Your task to perform on an android device: turn off location Image 0: 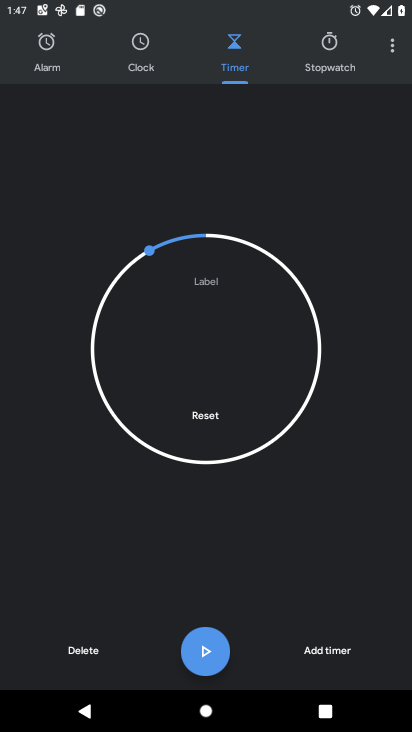
Step 0: press home button
Your task to perform on an android device: turn off location Image 1: 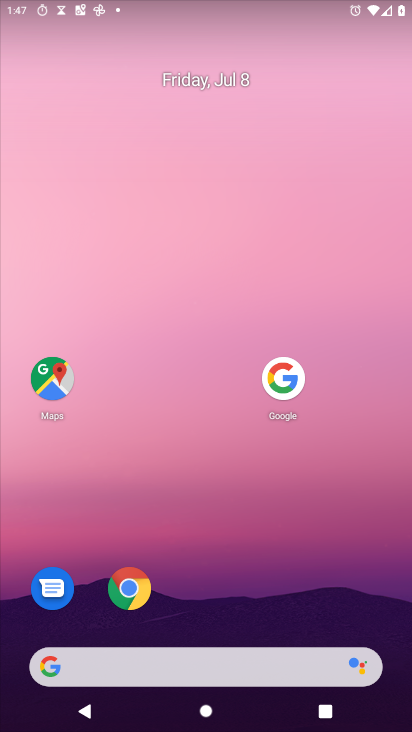
Step 1: drag from (185, 655) to (288, 42)
Your task to perform on an android device: turn off location Image 2: 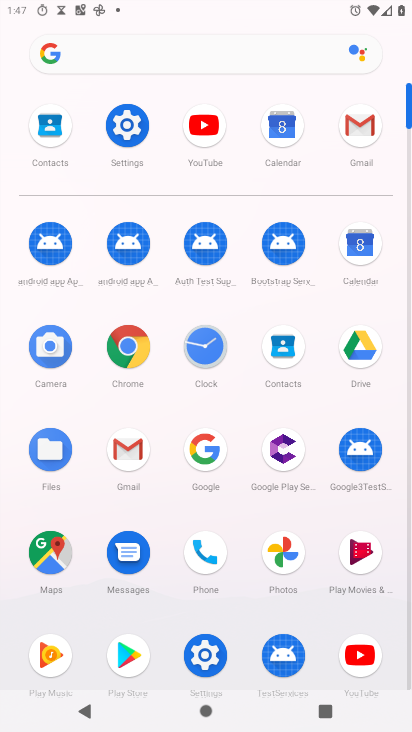
Step 2: click (134, 123)
Your task to perform on an android device: turn off location Image 3: 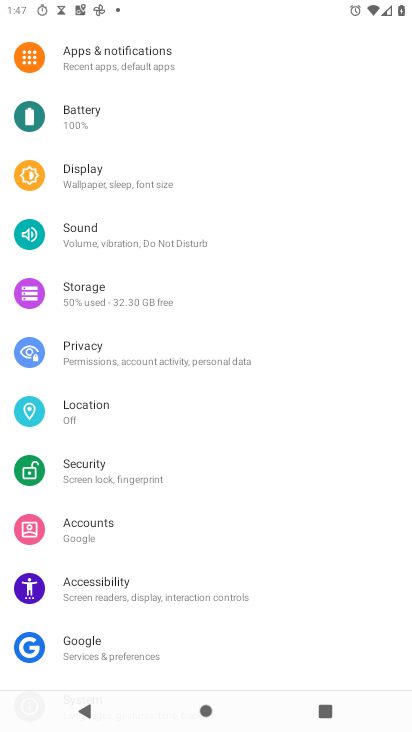
Step 3: click (83, 403)
Your task to perform on an android device: turn off location Image 4: 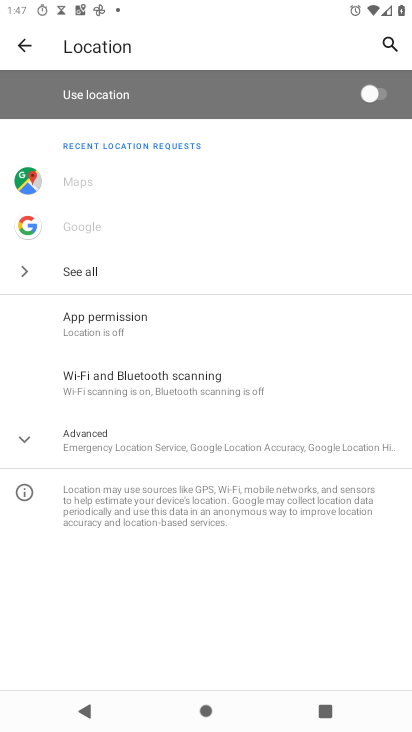
Step 4: task complete